Your task to perform on an android device: clear history in the chrome app Image 0: 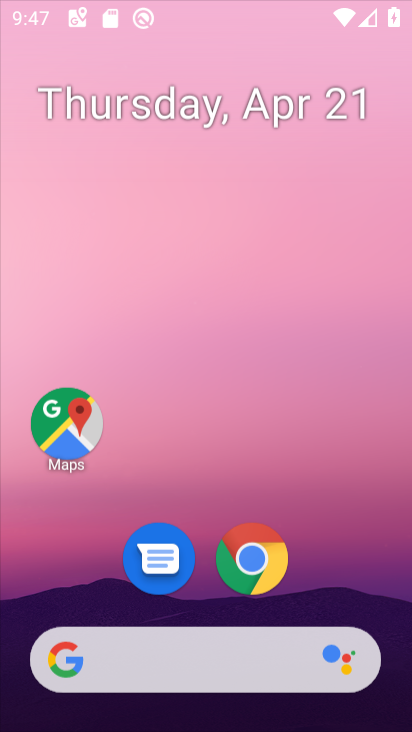
Step 0: click (353, 279)
Your task to perform on an android device: clear history in the chrome app Image 1: 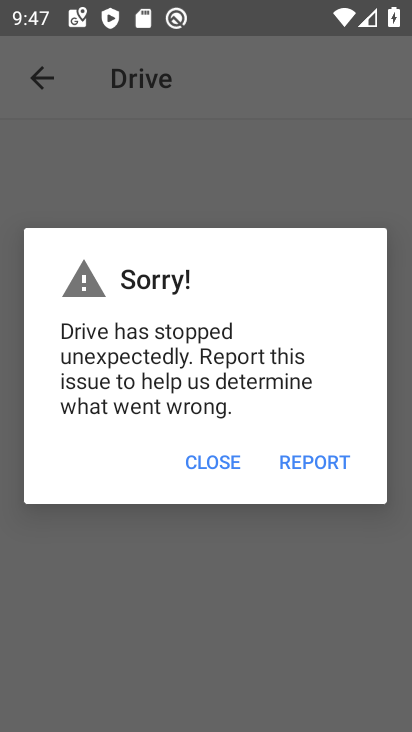
Step 1: press home button
Your task to perform on an android device: clear history in the chrome app Image 2: 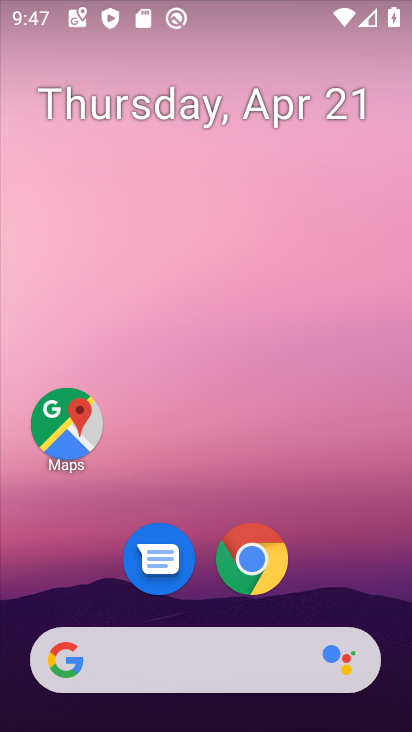
Step 2: drag from (280, 665) to (334, 185)
Your task to perform on an android device: clear history in the chrome app Image 3: 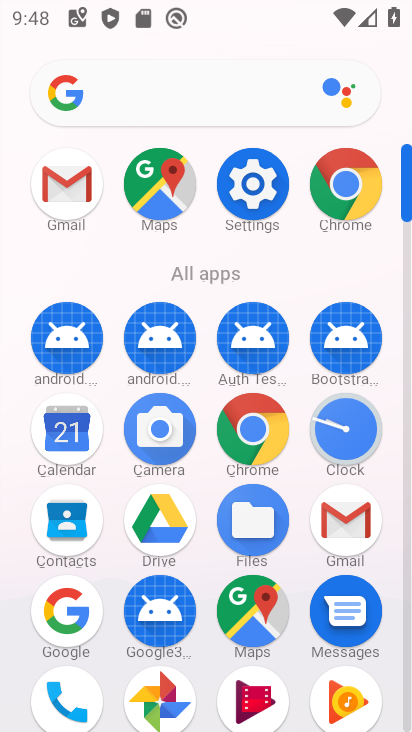
Step 3: click (349, 191)
Your task to perform on an android device: clear history in the chrome app Image 4: 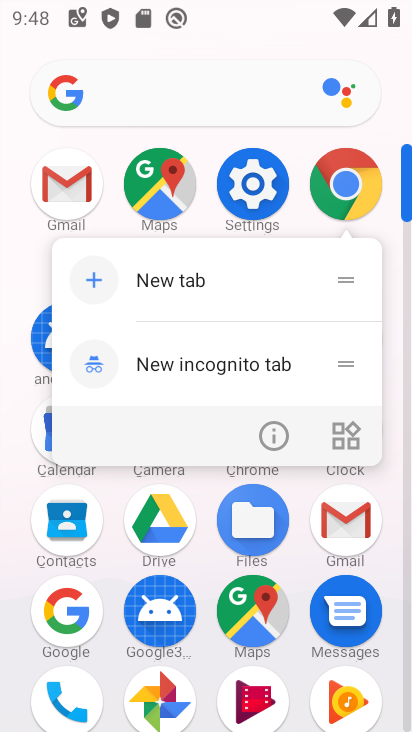
Step 4: click (357, 184)
Your task to perform on an android device: clear history in the chrome app Image 5: 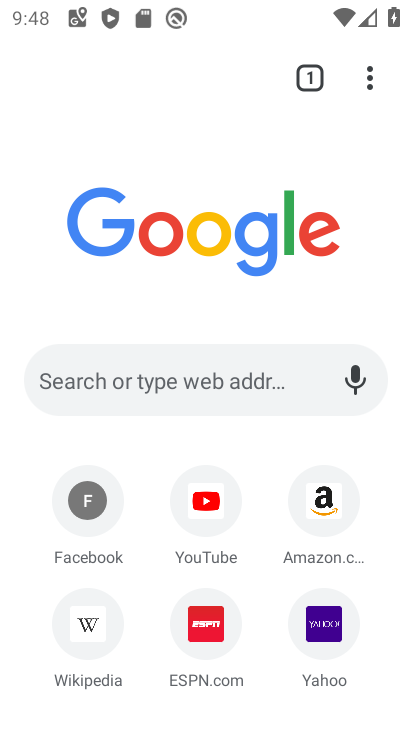
Step 5: click (378, 82)
Your task to perform on an android device: clear history in the chrome app Image 6: 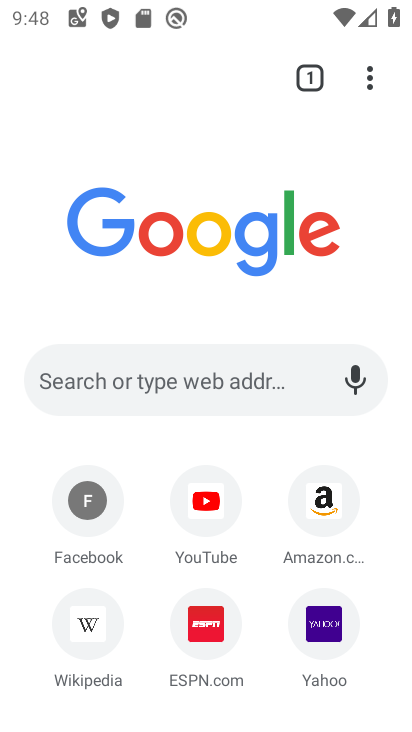
Step 6: click (365, 97)
Your task to perform on an android device: clear history in the chrome app Image 7: 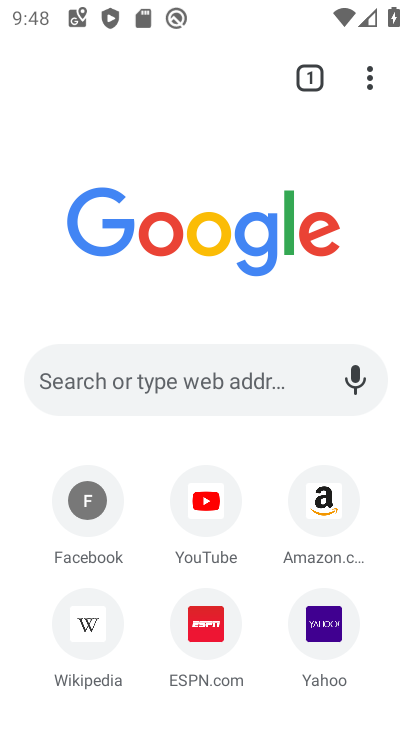
Step 7: click (384, 78)
Your task to perform on an android device: clear history in the chrome app Image 8: 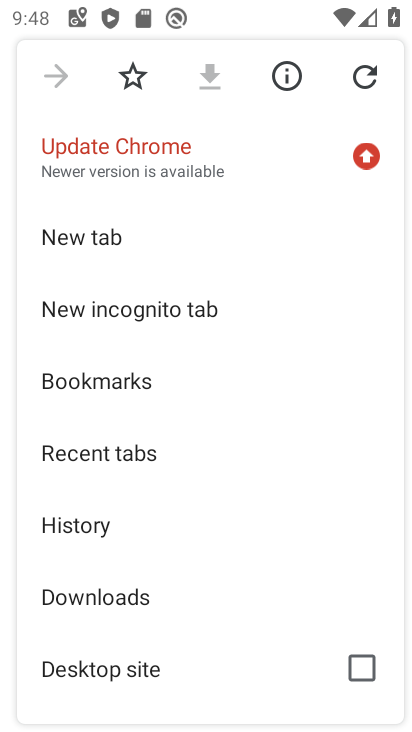
Step 8: click (96, 521)
Your task to perform on an android device: clear history in the chrome app Image 9: 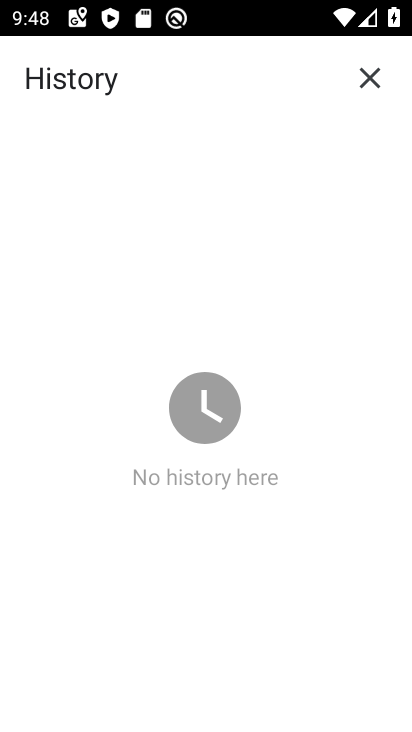
Step 9: task complete